Your task to perform on an android device: Open Google Maps Image 0: 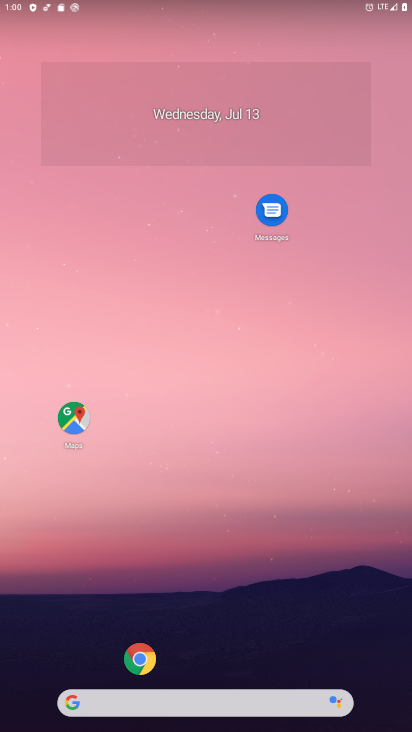
Step 0: click (79, 412)
Your task to perform on an android device: Open Google Maps Image 1: 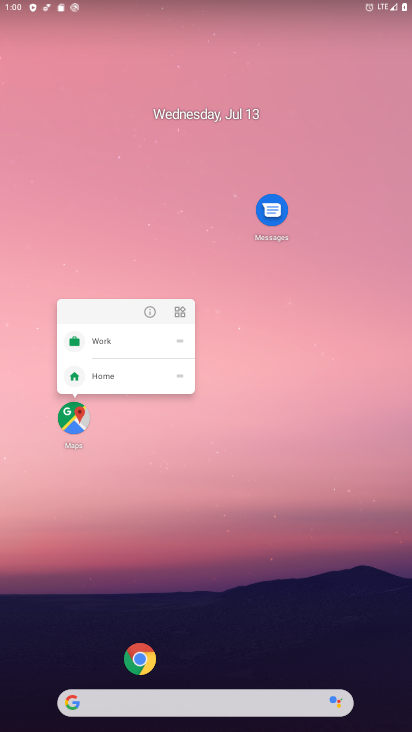
Step 1: click (67, 429)
Your task to perform on an android device: Open Google Maps Image 2: 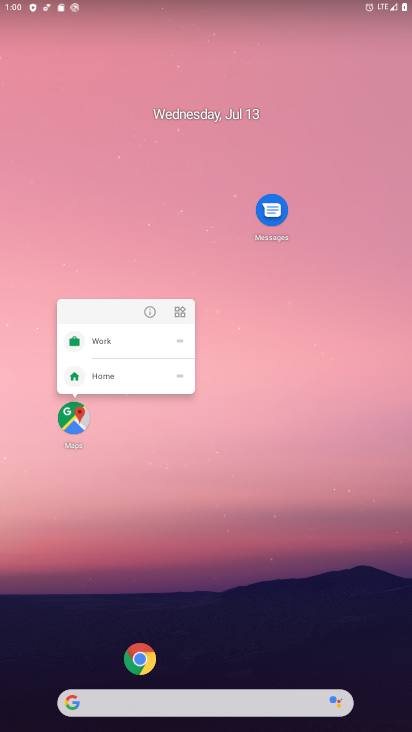
Step 2: click (74, 415)
Your task to perform on an android device: Open Google Maps Image 3: 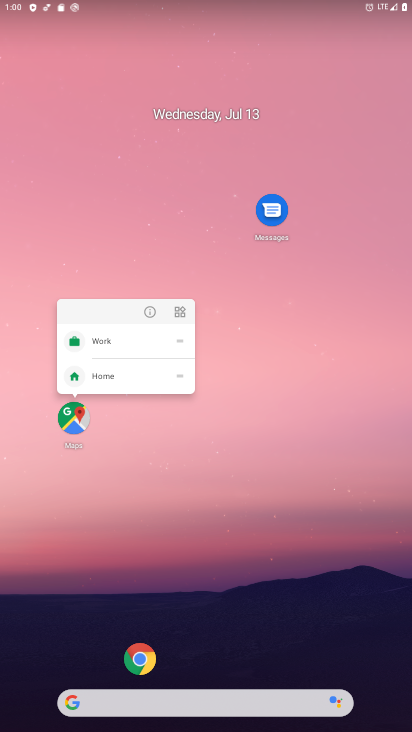
Step 3: click (84, 416)
Your task to perform on an android device: Open Google Maps Image 4: 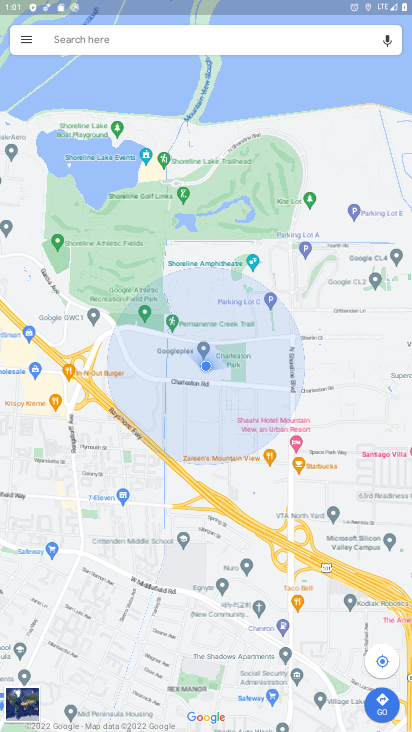
Step 4: task complete